Your task to perform on an android device: Search for Mexican restaurants on Maps Image 0: 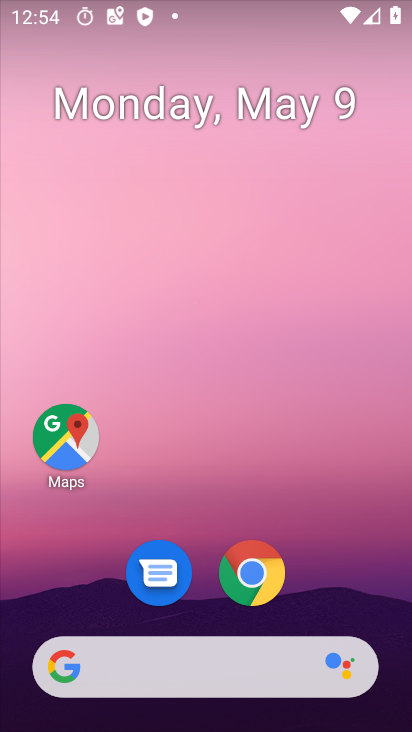
Step 0: click (82, 417)
Your task to perform on an android device: Search for Mexican restaurants on Maps Image 1: 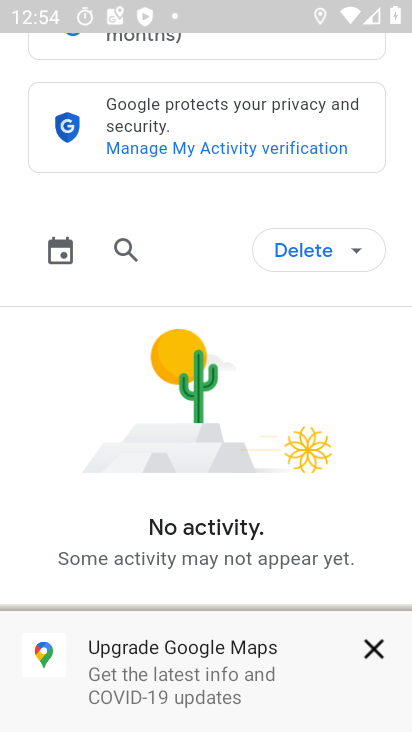
Step 1: press back button
Your task to perform on an android device: Search for Mexican restaurants on Maps Image 2: 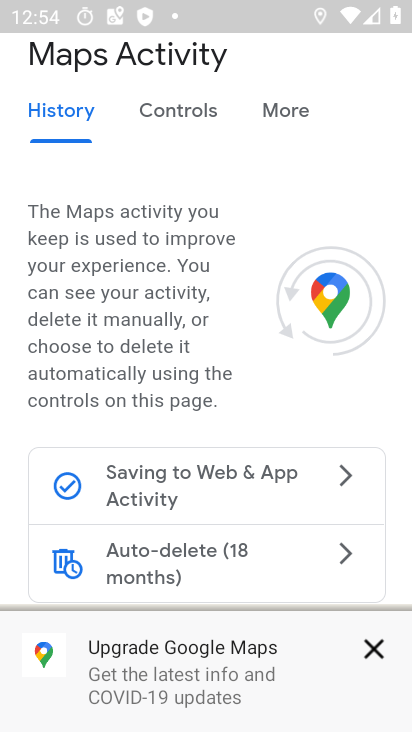
Step 2: press back button
Your task to perform on an android device: Search for Mexican restaurants on Maps Image 3: 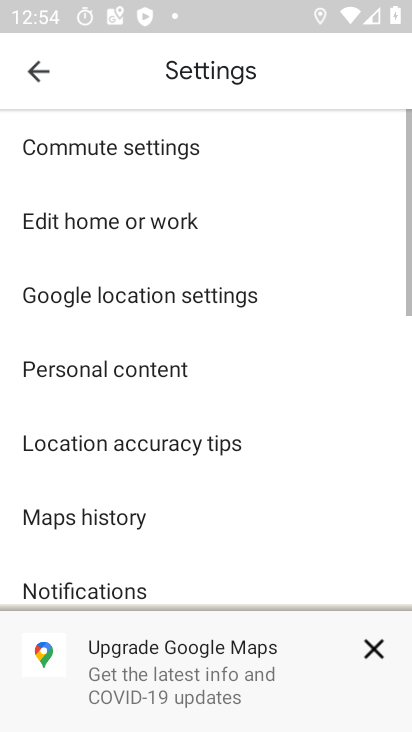
Step 3: press back button
Your task to perform on an android device: Search for Mexican restaurants on Maps Image 4: 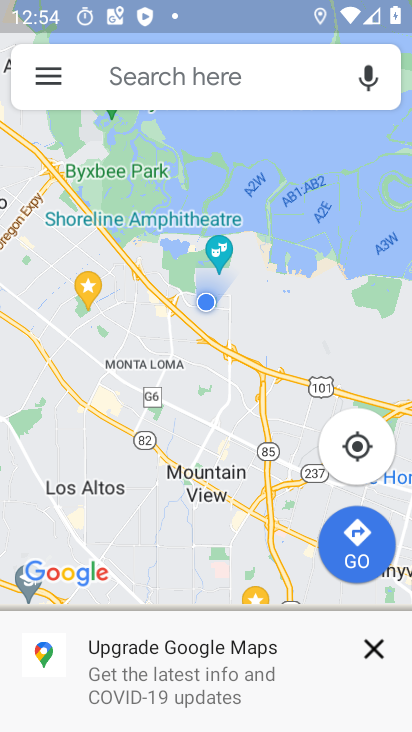
Step 4: click (188, 86)
Your task to perform on an android device: Search for Mexican restaurants on Maps Image 5: 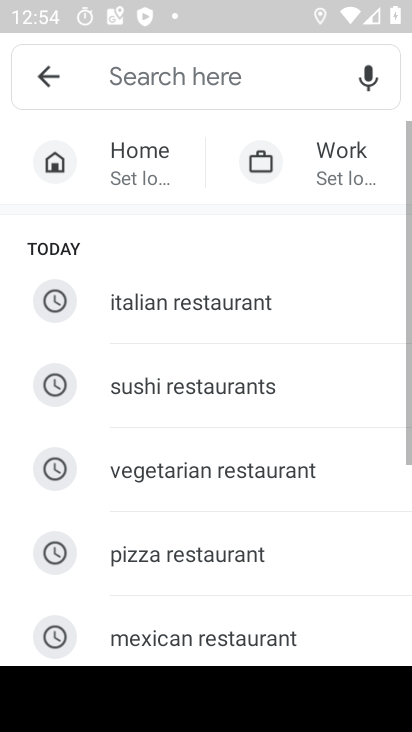
Step 5: click (137, 635)
Your task to perform on an android device: Search for Mexican restaurants on Maps Image 6: 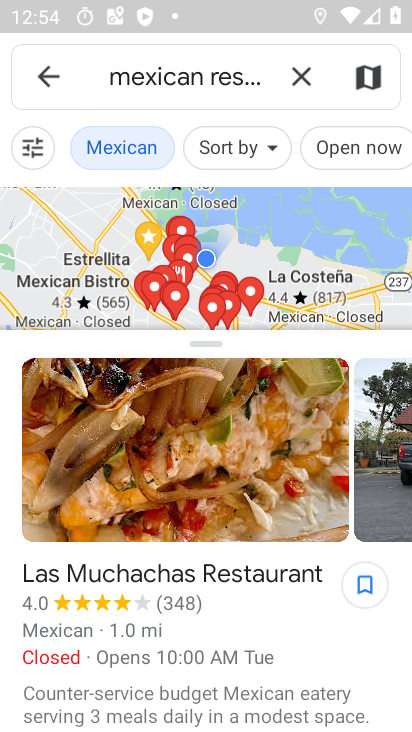
Step 6: task complete